Your task to perform on an android device: turn notification dots off Image 0: 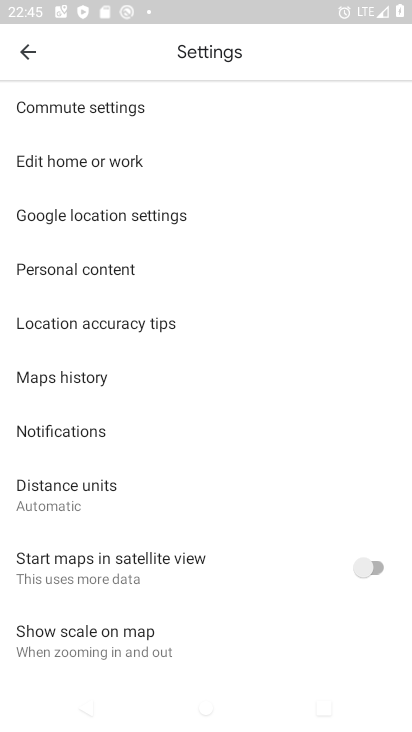
Step 0: click (29, 44)
Your task to perform on an android device: turn notification dots off Image 1: 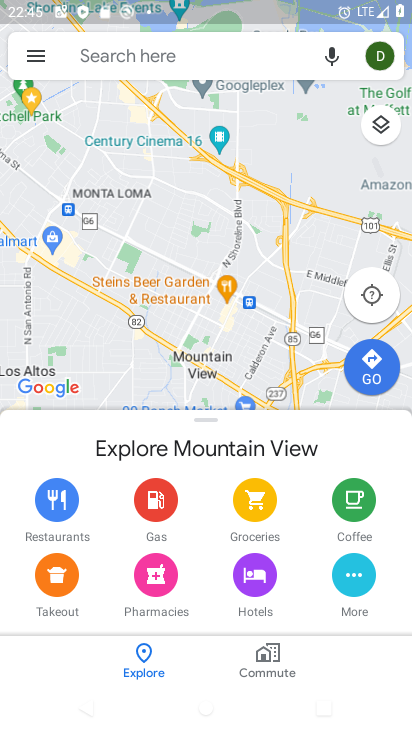
Step 1: press home button
Your task to perform on an android device: turn notification dots off Image 2: 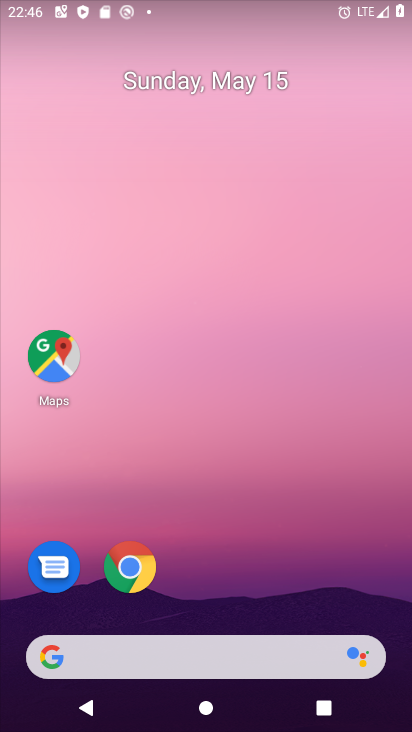
Step 2: drag from (269, 524) to (316, 77)
Your task to perform on an android device: turn notification dots off Image 3: 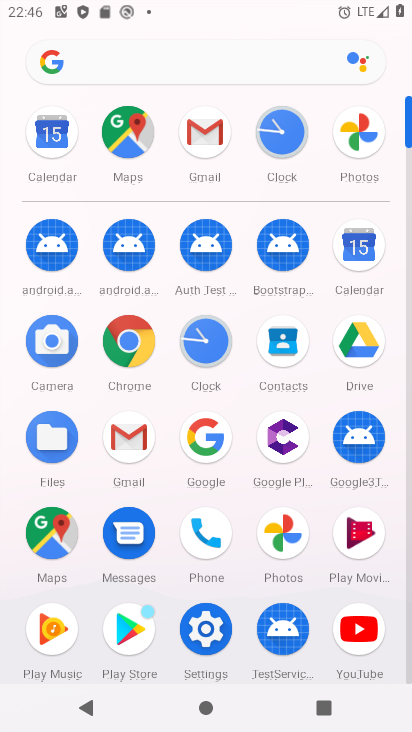
Step 3: click (215, 630)
Your task to perform on an android device: turn notification dots off Image 4: 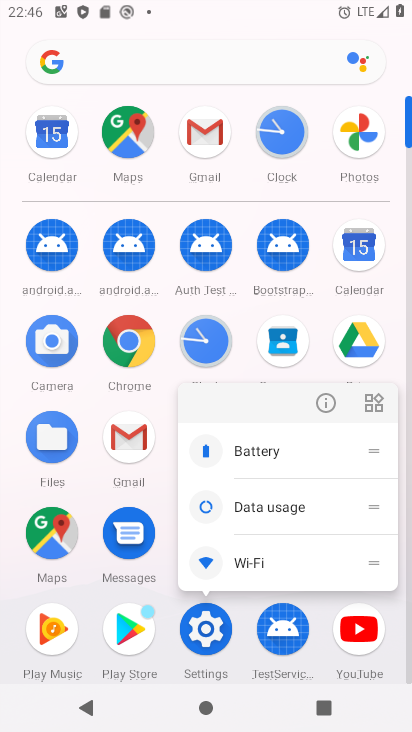
Step 4: click (201, 650)
Your task to perform on an android device: turn notification dots off Image 5: 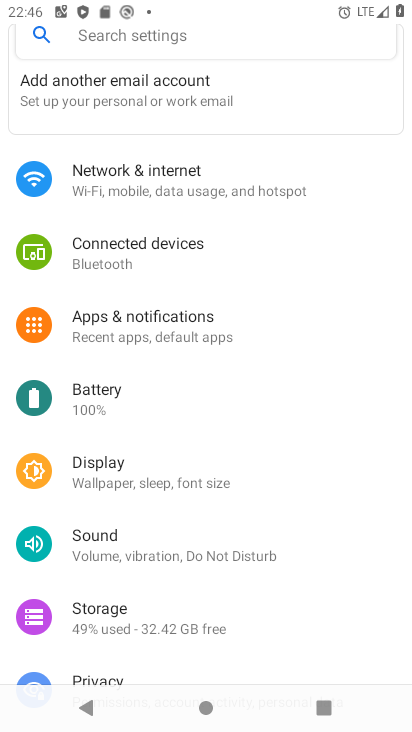
Step 5: click (188, 319)
Your task to perform on an android device: turn notification dots off Image 6: 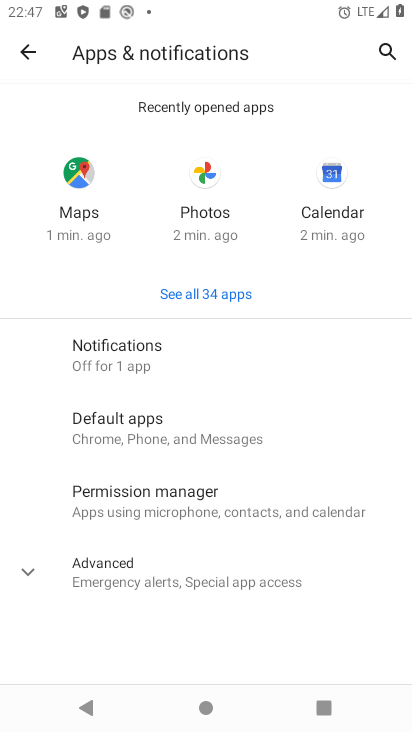
Step 6: click (172, 354)
Your task to perform on an android device: turn notification dots off Image 7: 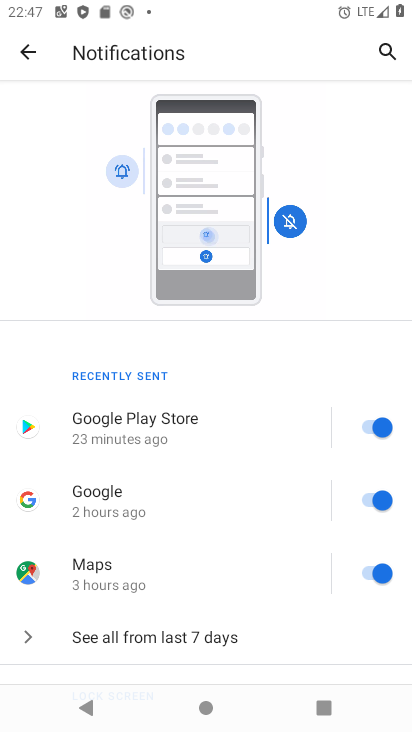
Step 7: drag from (237, 645) to (329, 146)
Your task to perform on an android device: turn notification dots off Image 8: 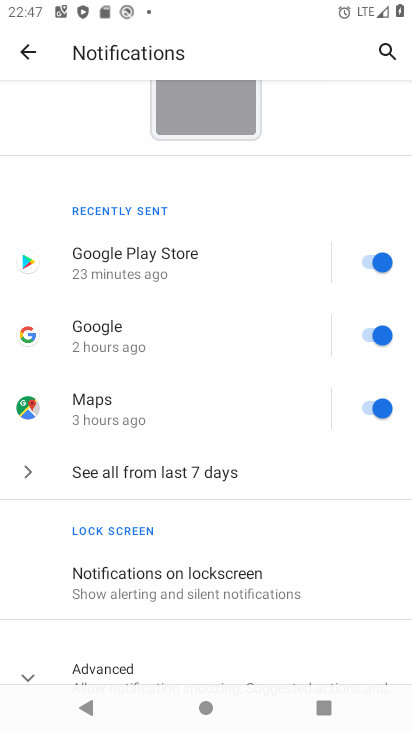
Step 8: drag from (261, 602) to (339, 165)
Your task to perform on an android device: turn notification dots off Image 9: 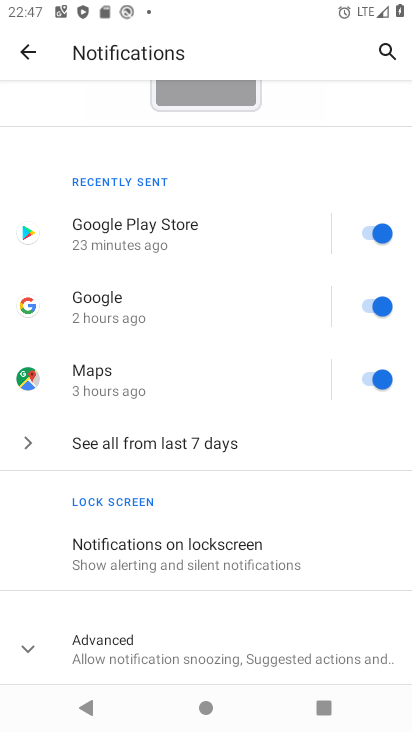
Step 9: click (216, 673)
Your task to perform on an android device: turn notification dots off Image 10: 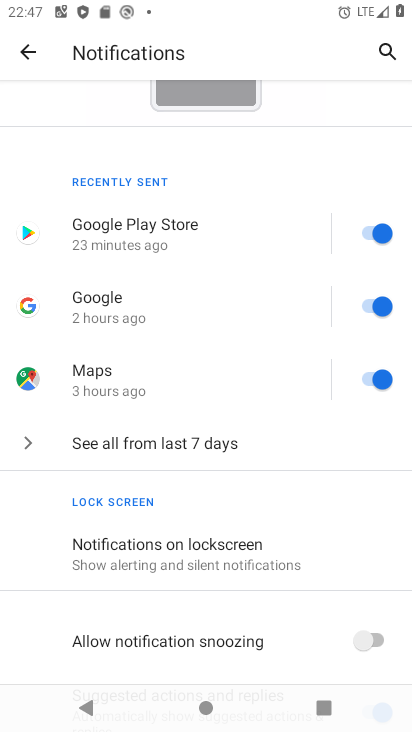
Step 10: drag from (263, 611) to (315, 164)
Your task to perform on an android device: turn notification dots off Image 11: 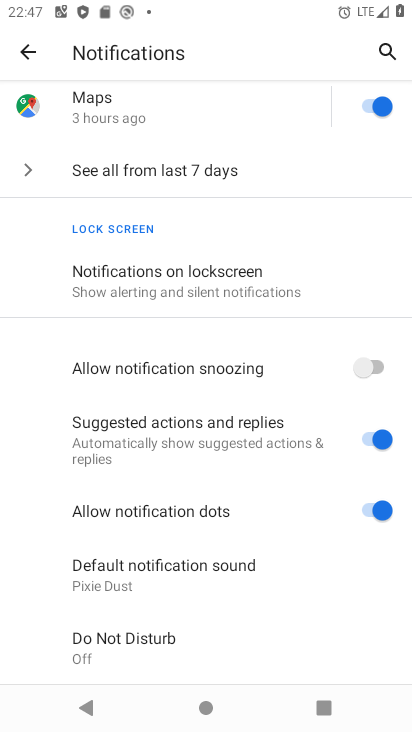
Step 11: click (385, 507)
Your task to perform on an android device: turn notification dots off Image 12: 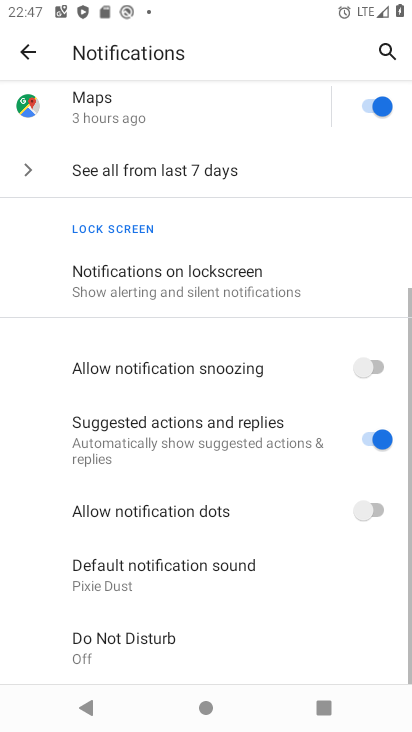
Step 12: task complete